Your task to perform on an android device: check google app version Image 0: 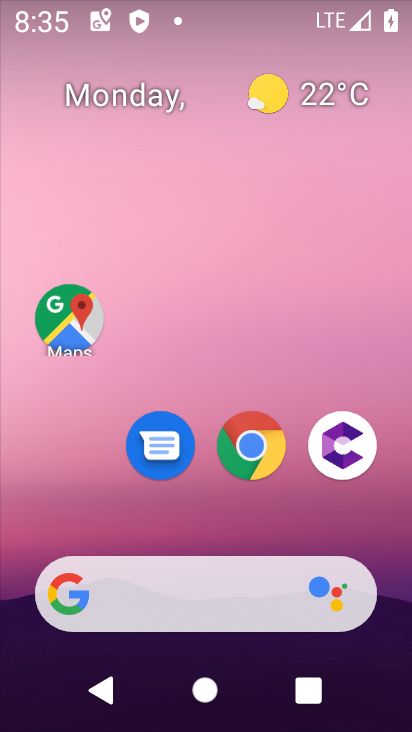
Step 0: drag from (212, 313) to (157, 16)
Your task to perform on an android device: check google app version Image 1: 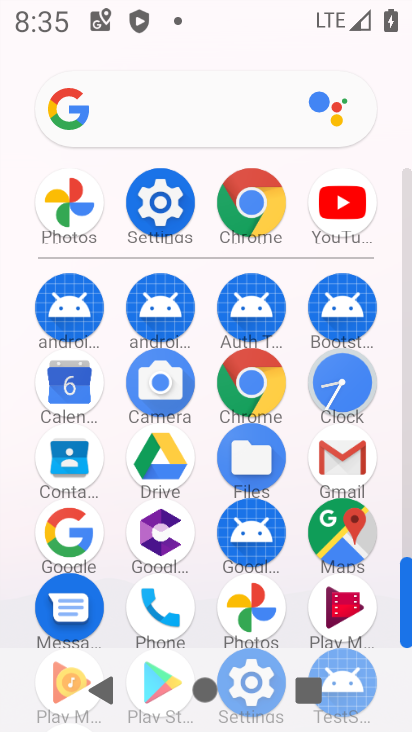
Step 1: click (66, 528)
Your task to perform on an android device: check google app version Image 2: 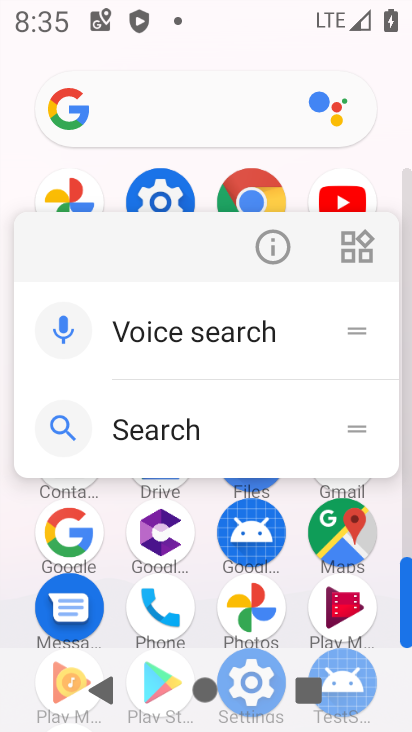
Step 2: click (277, 245)
Your task to perform on an android device: check google app version Image 3: 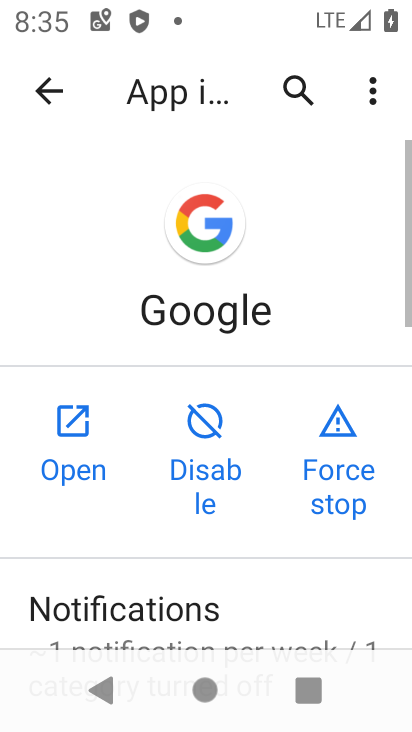
Step 3: drag from (301, 612) to (243, 175)
Your task to perform on an android device: check google app version Image 4: 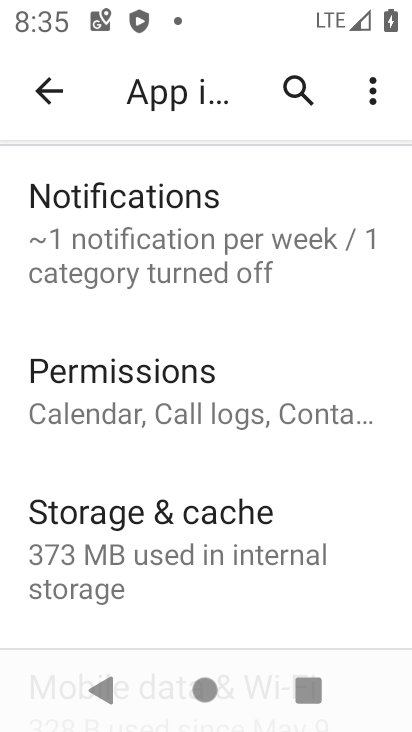
Step 4: drag from (208, 550) to (153, 125)
Your task to perform on an android device: check google app version Image 5: 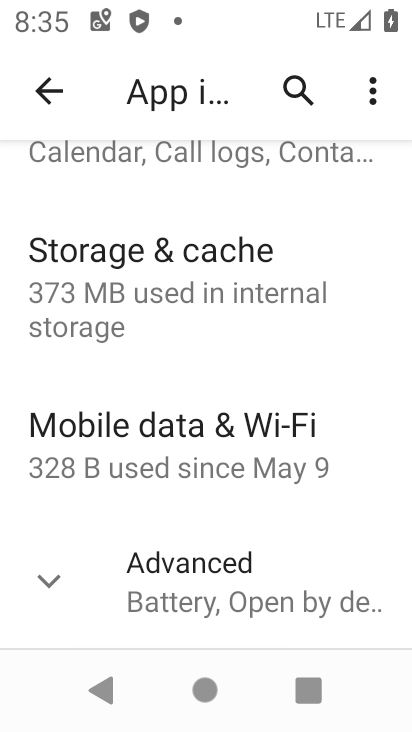
Step 5: drag from (79, 569) to (91, 164)
Your task to perform on an android device: check google app version Image 6: 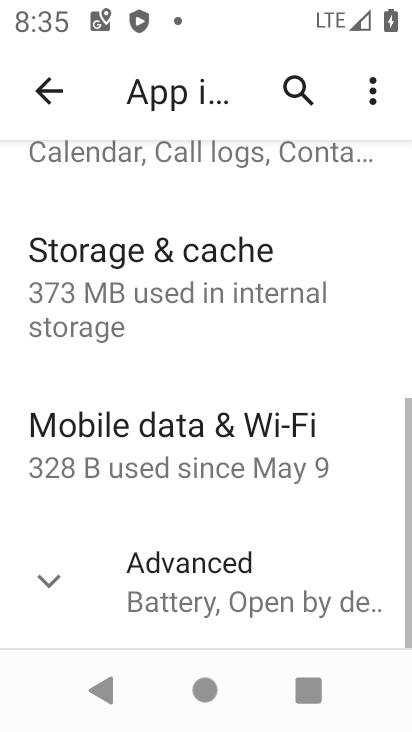
Step 6: click (50, 577)
Your task to perform on an android device: check google app version Image 7: 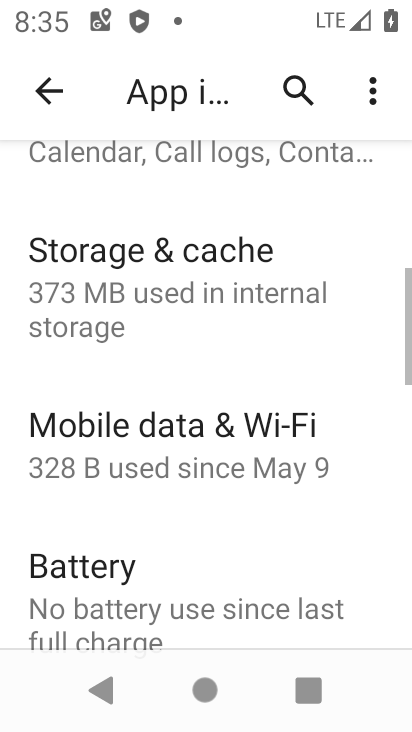
Step 7: task complete